Your task to perform on an android device: Show me recent news Image 0: 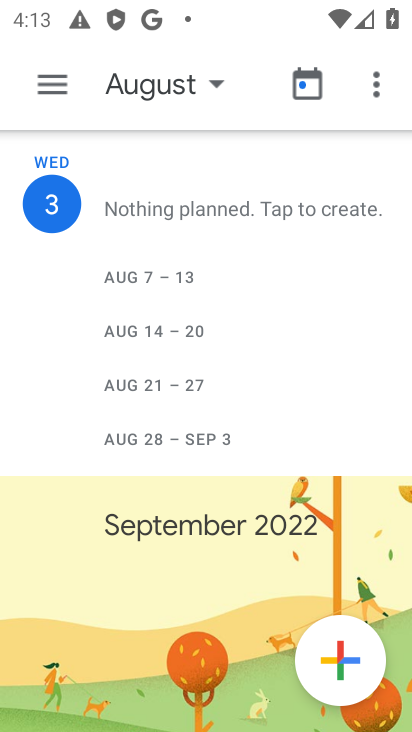
Step 0: press home button
Your task to perform on an android device: Show me recent news Image 1: 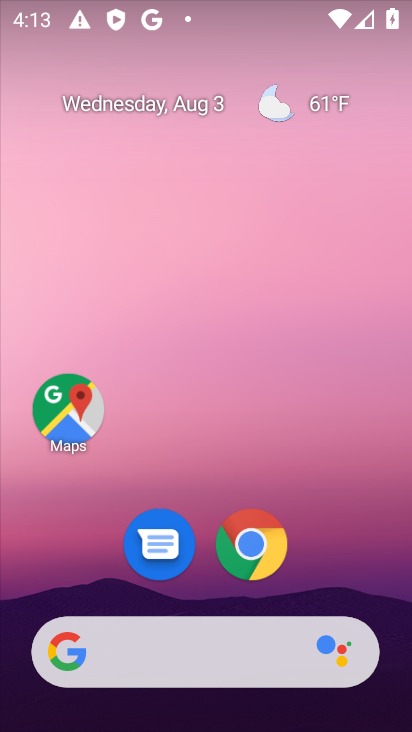
Step 1: drag from (350, 563) to (344, 60)
Your task to perform on an android device: Show me recent news Image 2: 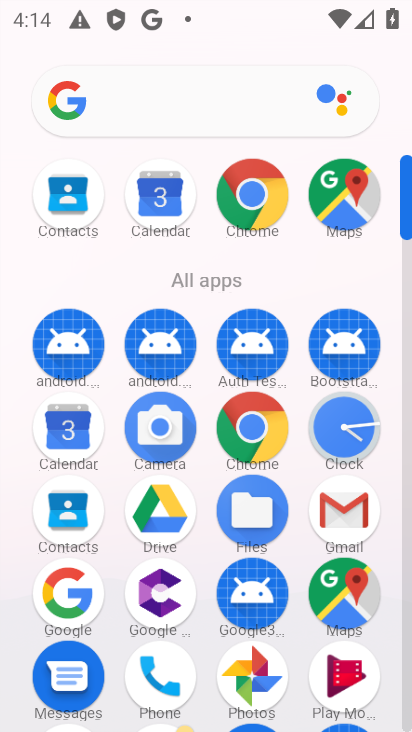
Step 2: click (254, 425)
Your task to perform on an android device: Show me recent news Image 3: 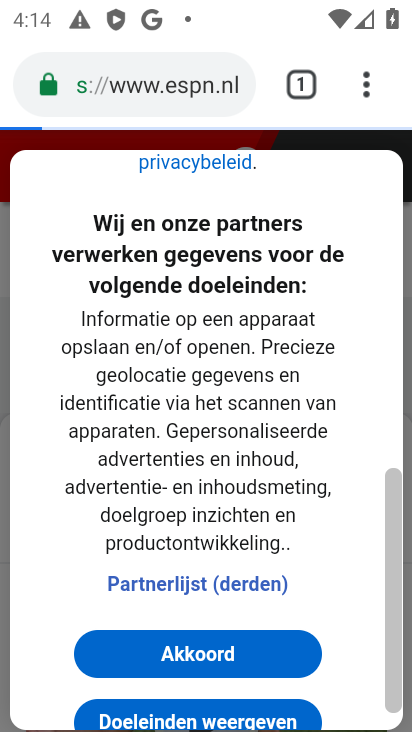
Step 3: click (185, 81)
Your task to perform on an android device: Show me recent news Image 4: 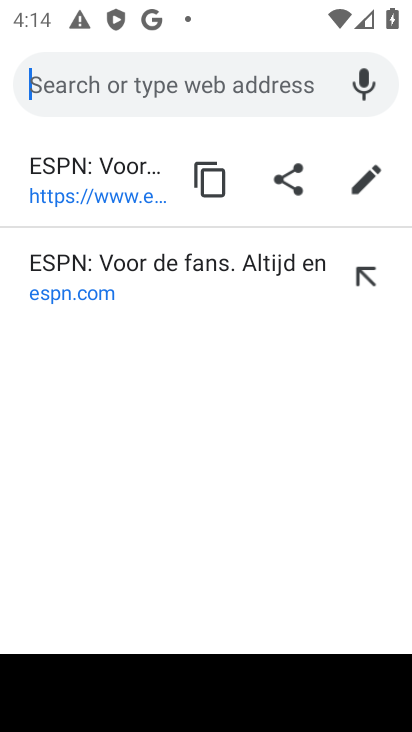
Step 4: type "Show me recent news"
Your task to perform on an android device: Show me recent news Image 5: 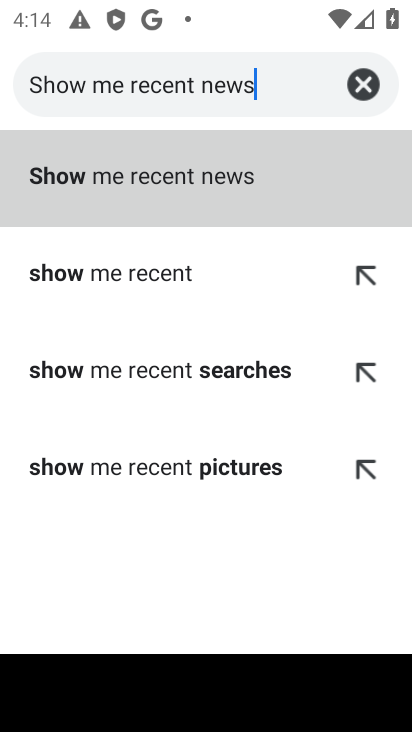
Step 5: type ""
Your task to perform on an android device: Show me recent news Image 6: 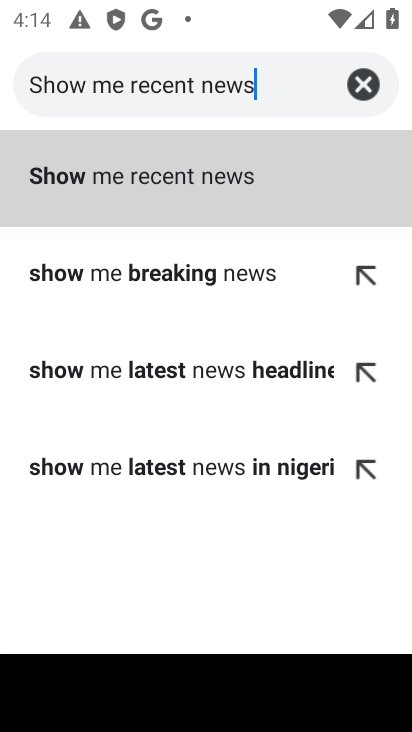
Step 6: click (131, 175)
Your task to perform on an android device: Show me recent news Image 7: 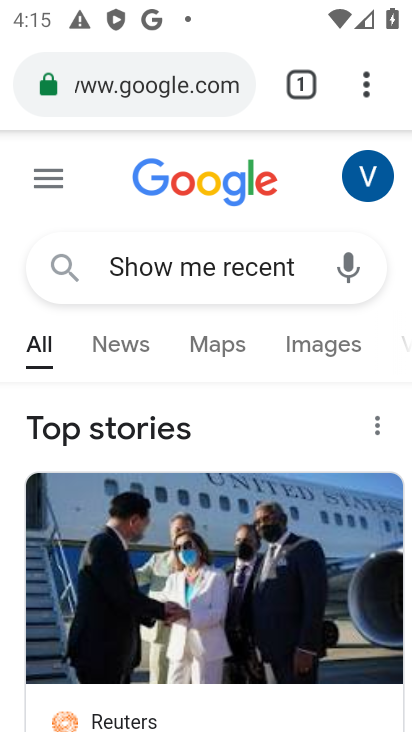
Step 7: click (128, 334)
Your task to perform on an android device: Show me recent news Image 8: 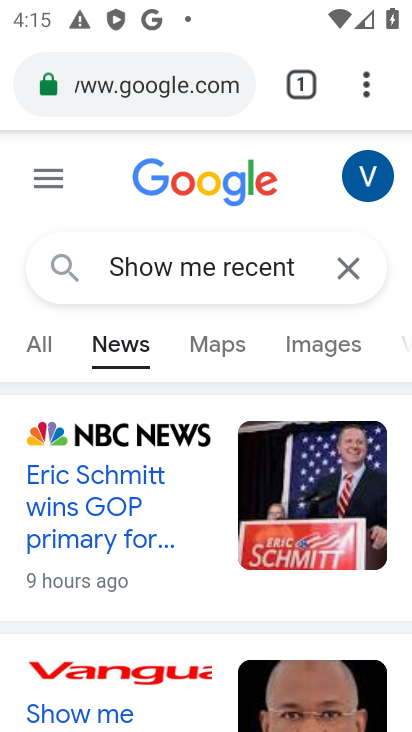
Step 8: task complete